Your task to perform on an android device: Add macbook to the cart on ebay.com Image 0: 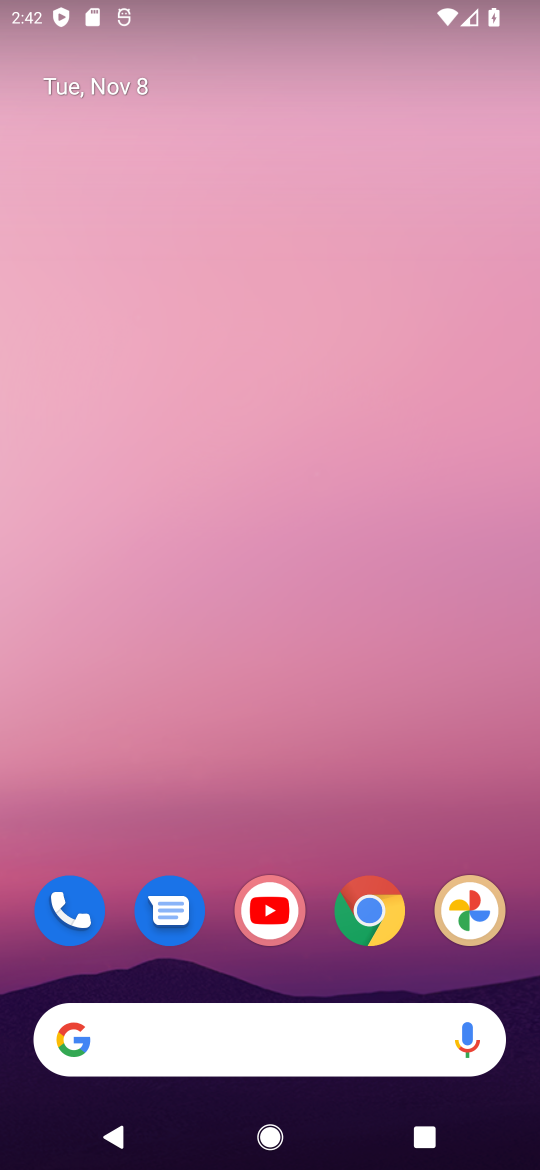
Step 0: drag from (323, 992) to (391, 160)
Your task to perform on an android device: Add macbook to the cart on ebay.com Image 1: 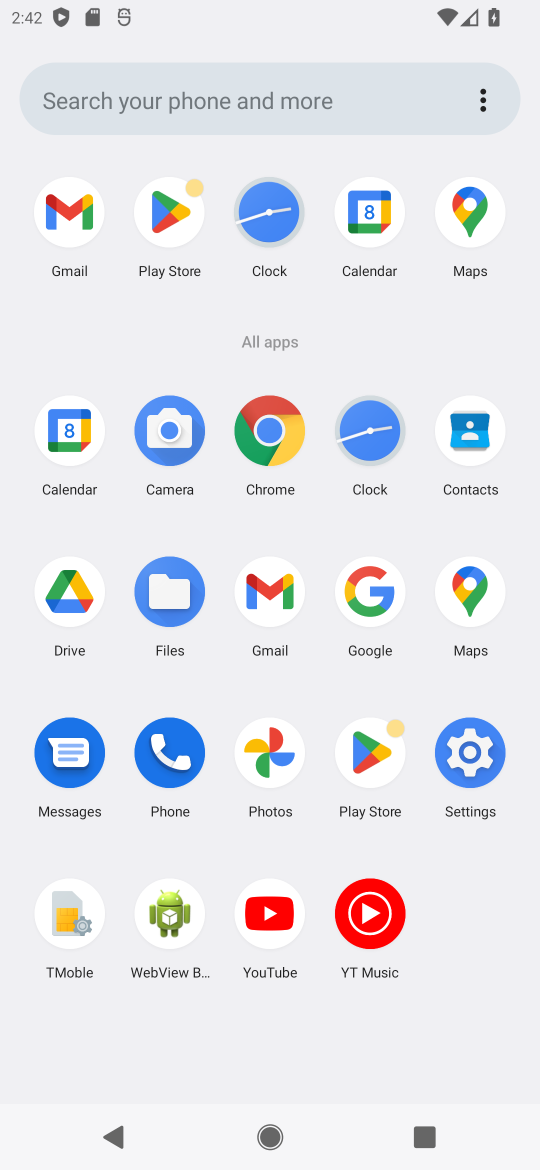
Step 1: click (265, 428)
Your task to perform on an android device: Add macbook to the cart on ebay.com Image 2: 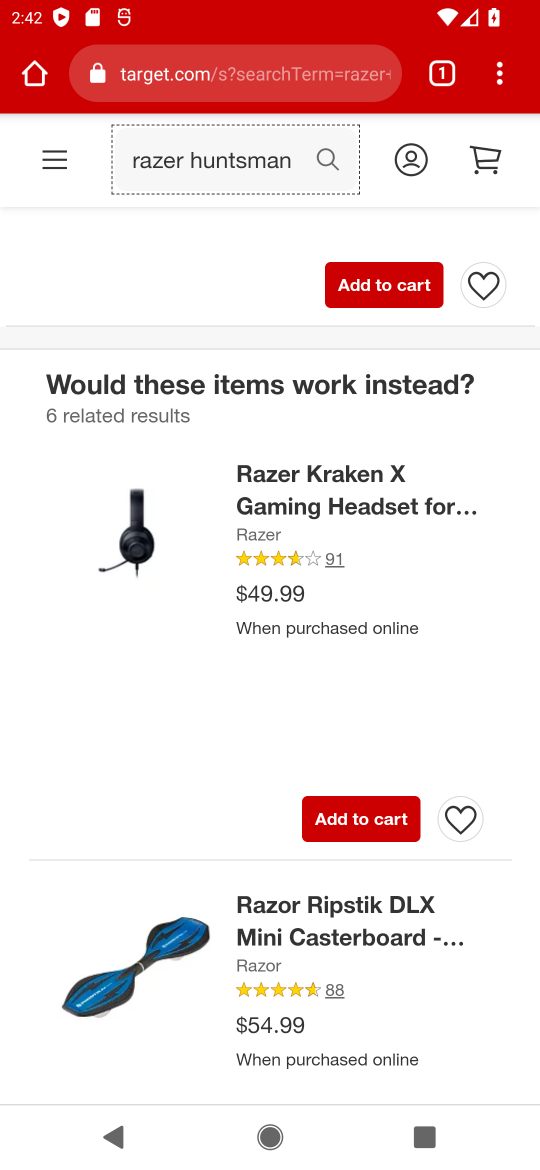
Step 2: click (272, 76)
Your task to perform on an android device: Add macbook to the cart on ebay.com Image 3: 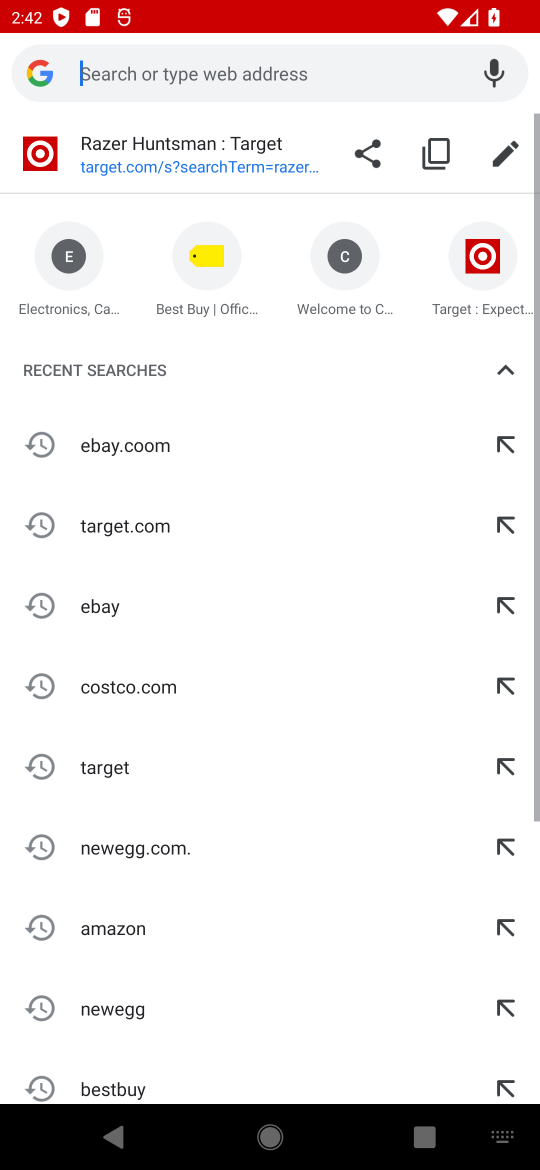
Step 3: type ""
Your task to perform on an android device: Add macbook to the cart on ebay.com Image 4: 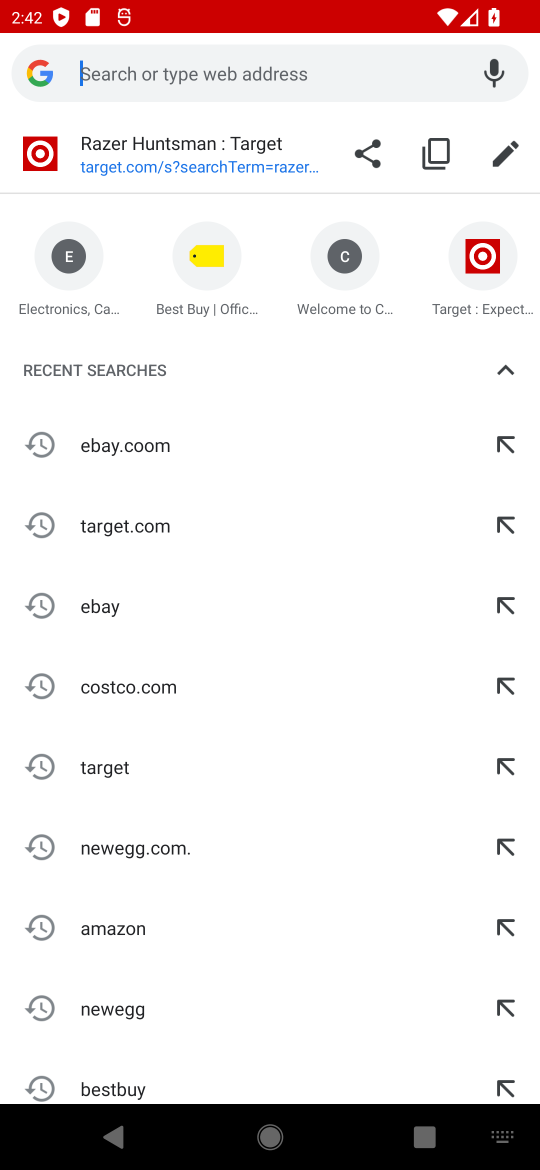
Step 4: type "ebay.com"
Your task to perform on an android device: Add macbook to the cart on ebay.com Image 5: 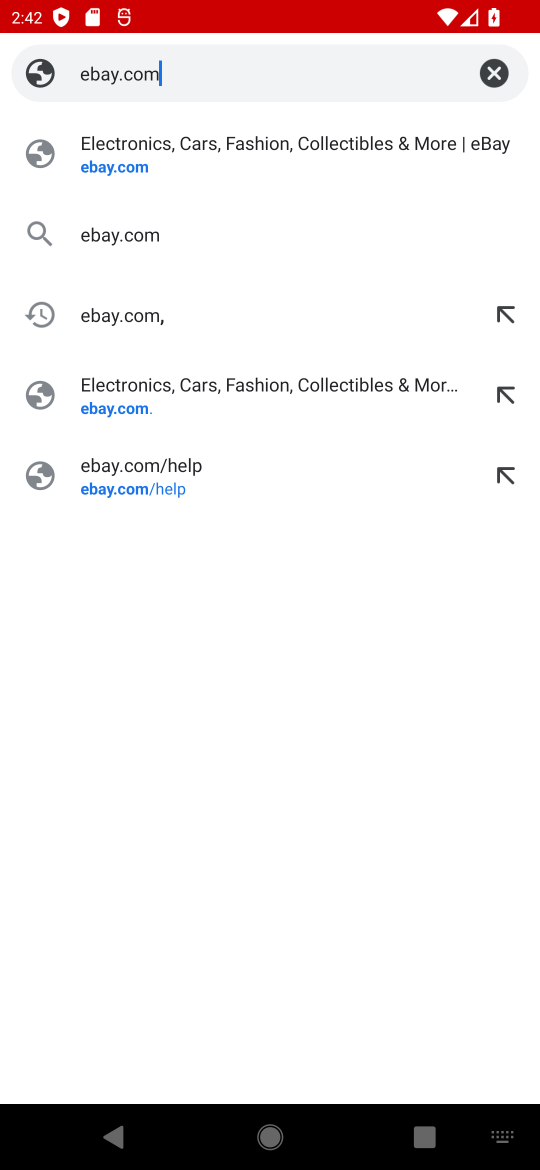
Step 5: press enter
Your task to perform on an android device: Add macbook to the cart on ebay.com Image 6: 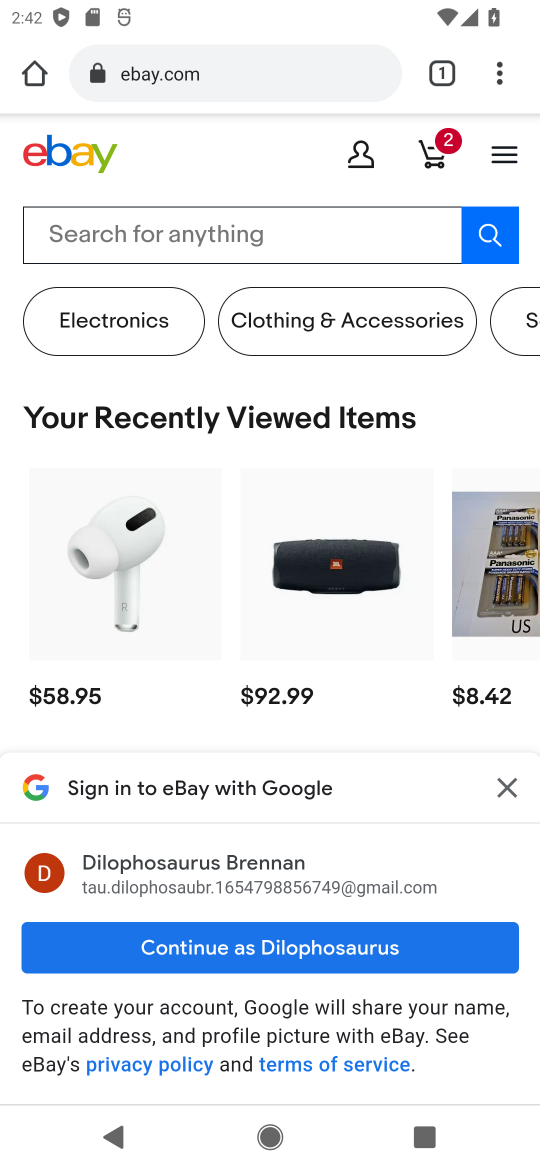
Step 6: click (315, 233)
Your task to perform on an android device: Add macbook to the cart on ebay.com Image 7: 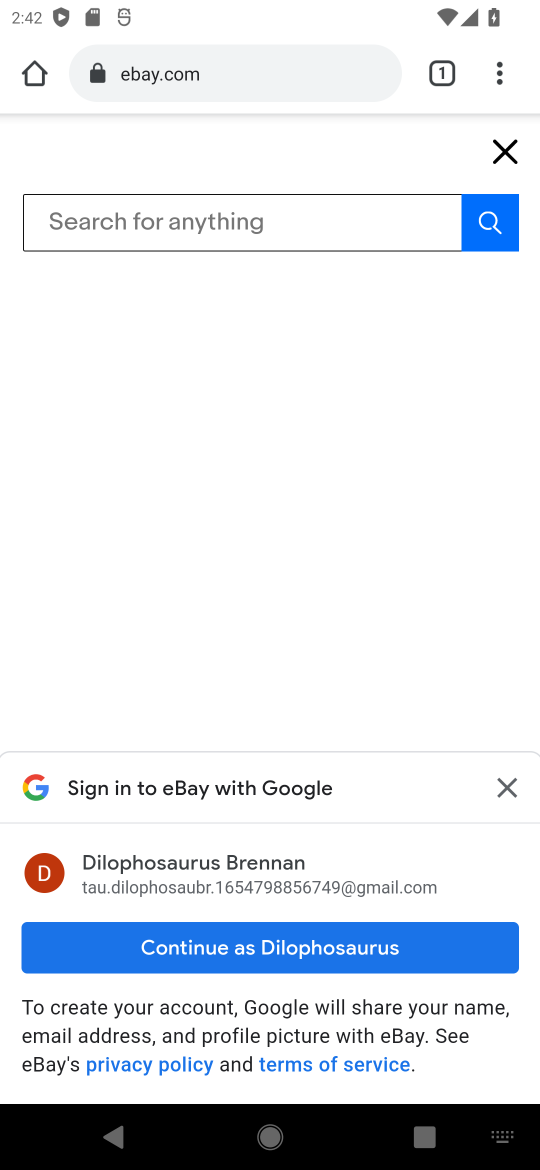
Step 7: type "macbook"
Your task to perform on an android device: Add macbook to the cart on ebay.com Image 8: 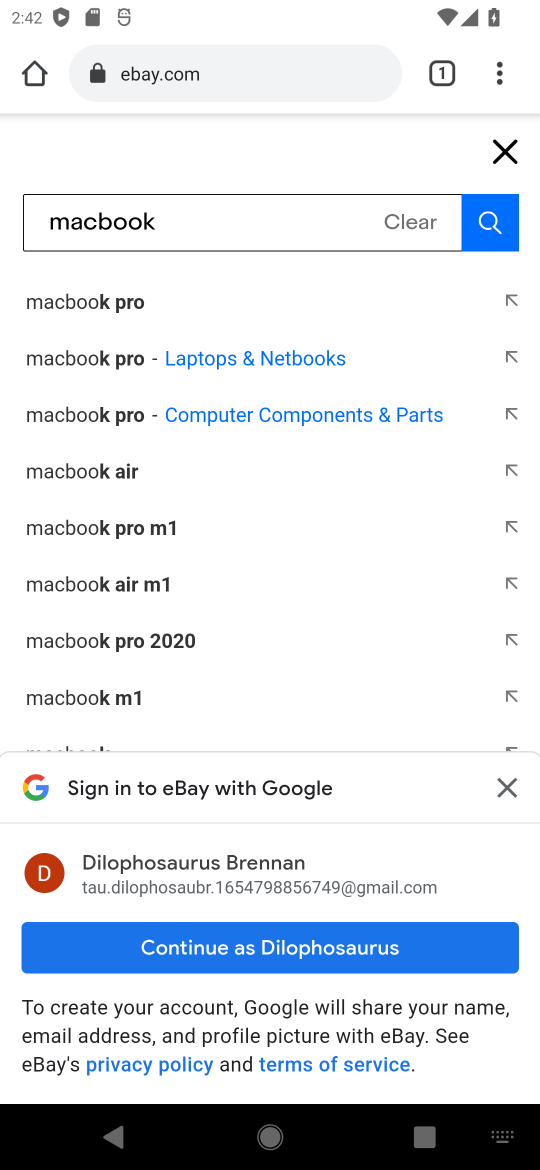
Step 8: press enter
Your task to perform on an android device: Add macbook to the cart on ebay.com Image 9: 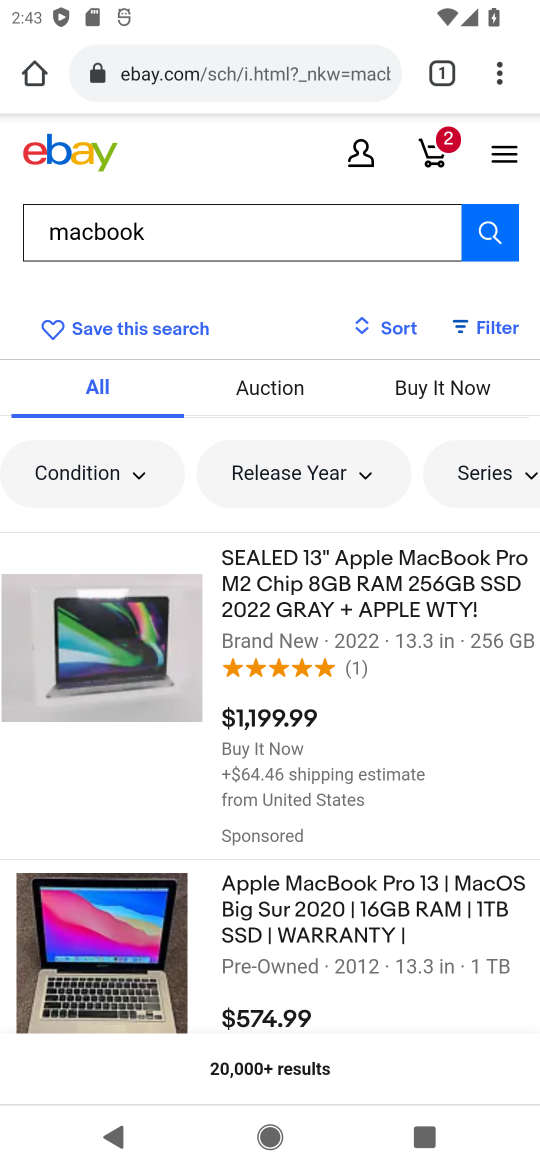
Step 9: click (324, 620)
Your task to perform on an android device: Add macbook to the cart on ebay.com Image 10: 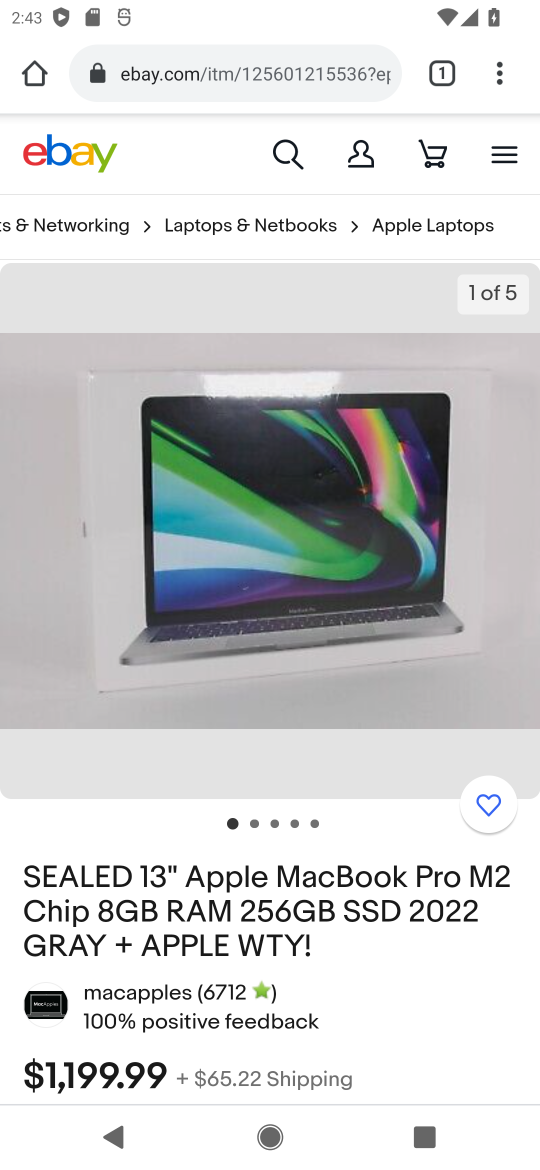
Step 10: drag from (321, 922) to (367, 233)
Your task to perform on an android device: Add macbook to the cart on ebay.com Image 11: 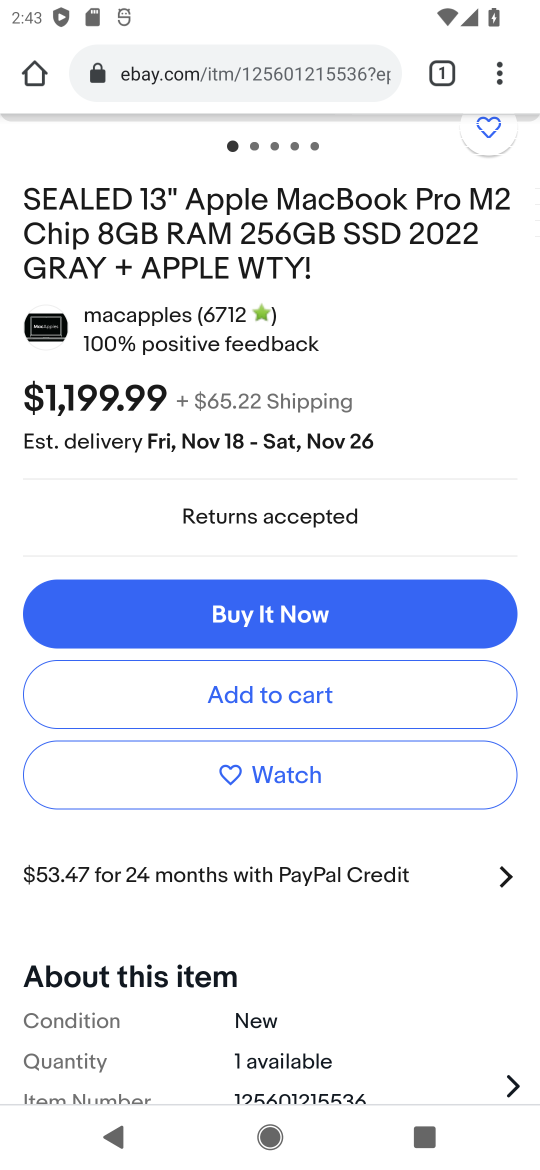
Step 11: click (320, 703)
Your task to perform on an android device: Add macbook to the cart on ebay.com Image 12: 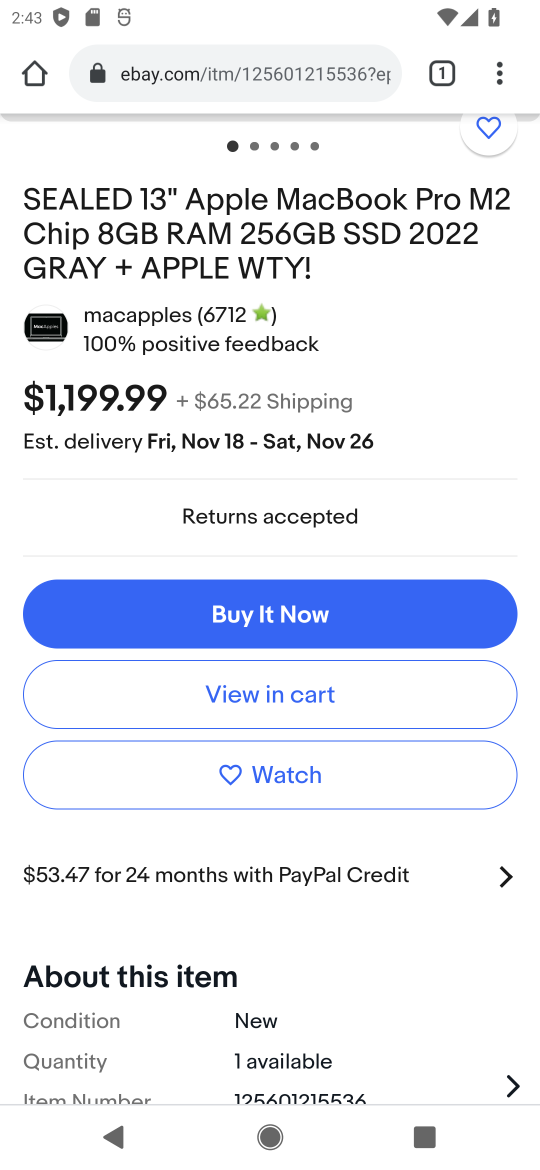
Step 12: task complete